Your task to perform on an android device: star an email in the gmail app Image 0: 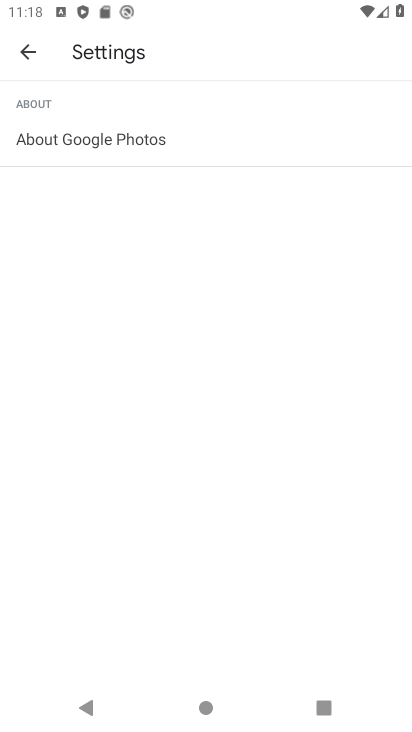
Step 0: press home button
Your task to perform on an android device: star an email in the gmail app Image 1: 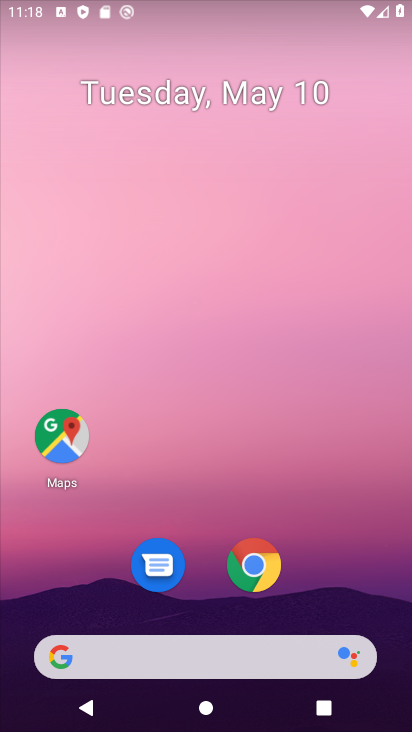
Step 1: drag from (81, 594) to (314, 216)
Your task to perform on an android device: star an email in the gmail app Image 2: 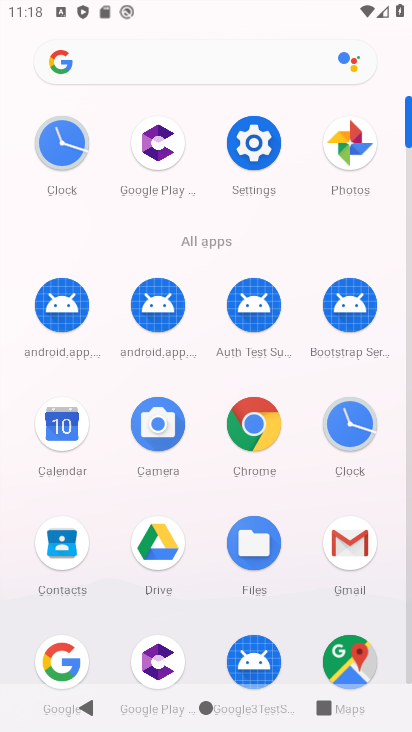
Step 2: click (360, 536)
Your task to perform on an android device: star an email in the gmail app Image 3: 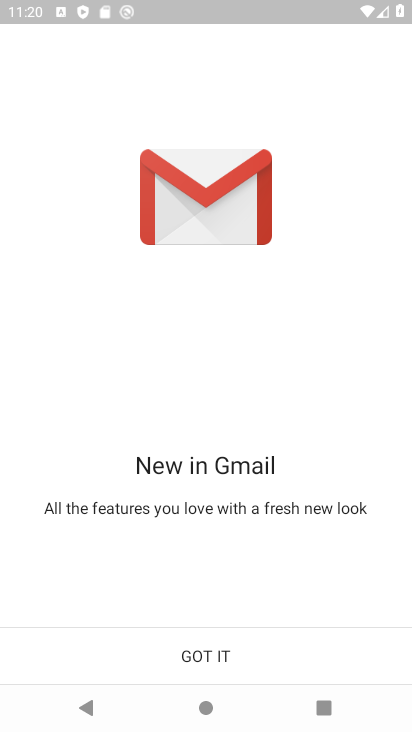
Step 3: click (183, 667)
Your task to perform on an android device: star an email in the gmail app Image 4: 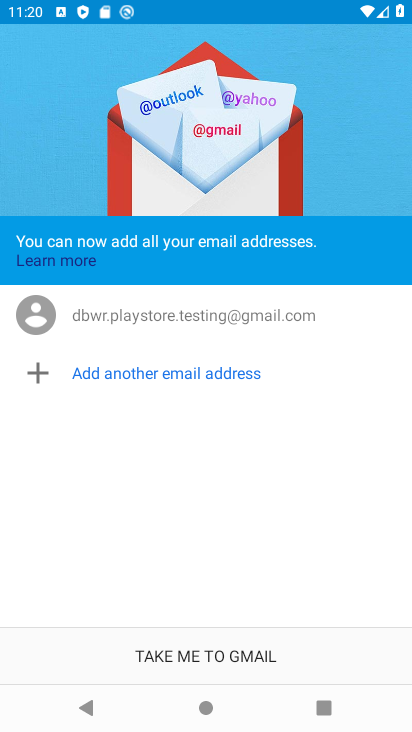
Step 4: click (163, 657)
Your task to perform on an android device: star an email in the gmail app Image 5: 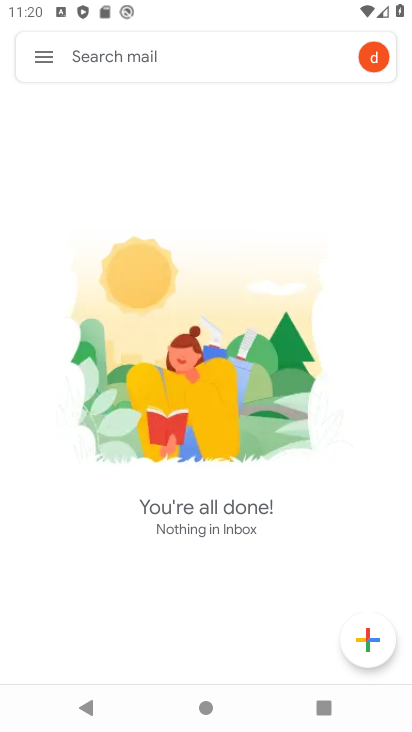
Step 5: click (29, 57)
Your task to perform on an android device: star an email in the gmail app Image 6: 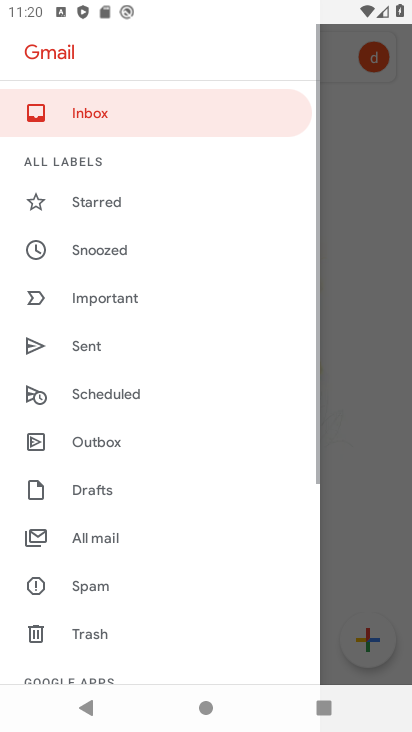
Step 6: click (118, 123)
Your task to perform on an android device: star an email in the gmail app Image 7: 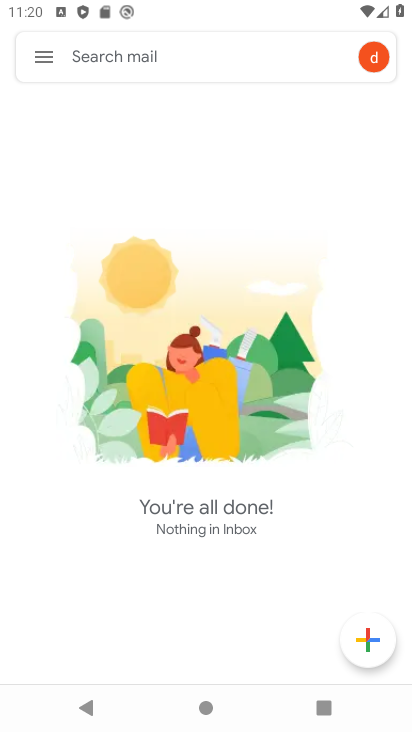
Step 7: task complete